Your task to perform on an android device: check data usage Image 0: 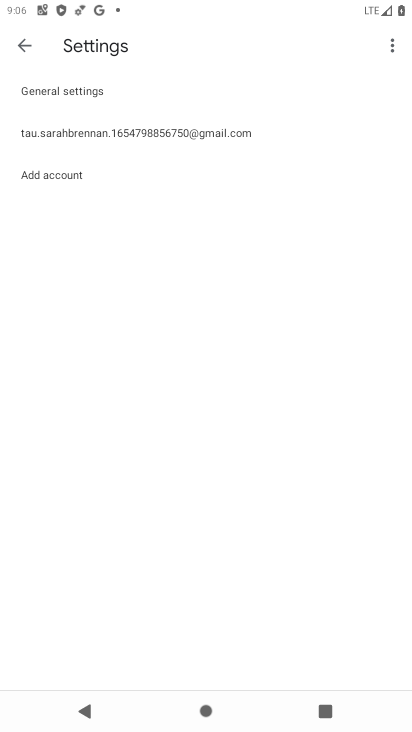
Step 0: press home button
Your task to perform on an android device: check data usage Image 1: 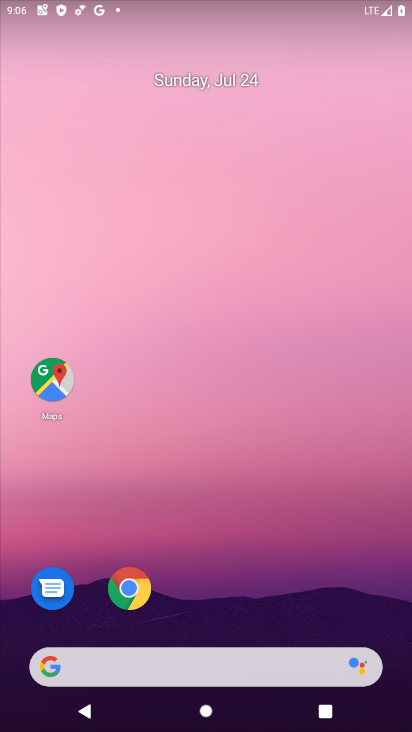
Step 1: drag from (183, 658) to (207, 264)
Your task to perform on an android device: check data usage Image 2: 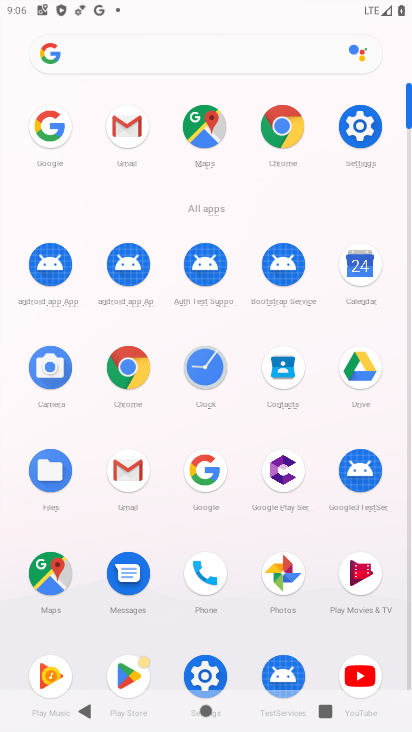
Step 2: click (376, 117)
Your task to perform on an android device: check data usage Image 3: 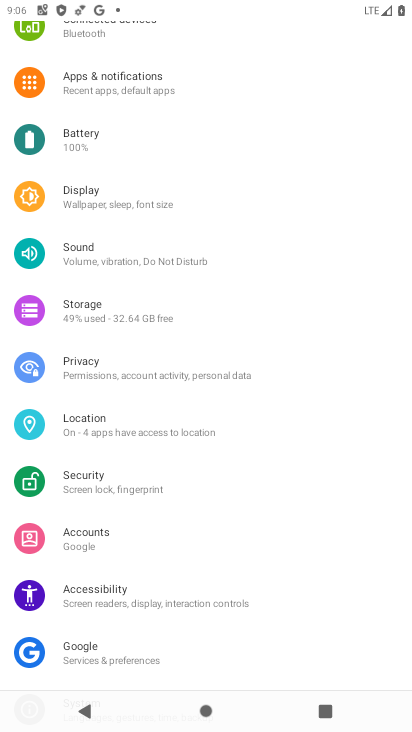
Step 3: drag from (131, 114) to (84, 448)
Your task to perform on an android device: check data usage Image 4: 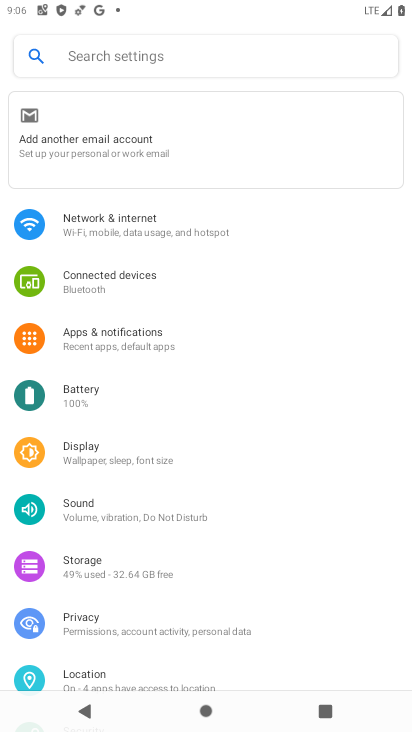
Step 4: click (137, 248)
Your task to perform on an android device: check data usage Image 5: 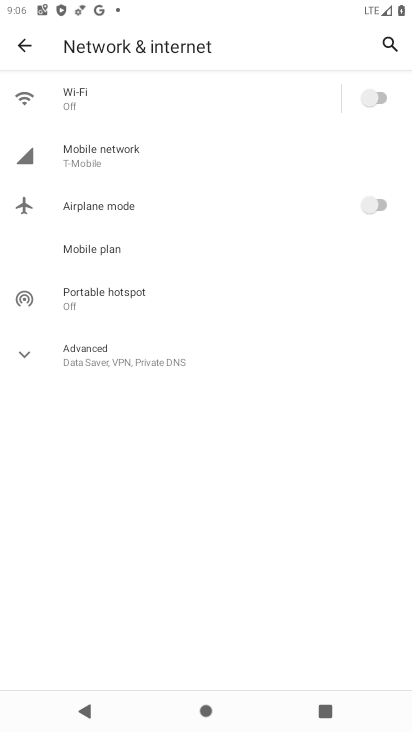
Step 5: click (136, 150)
Your task to perform on an android device: check data usage Image 6: 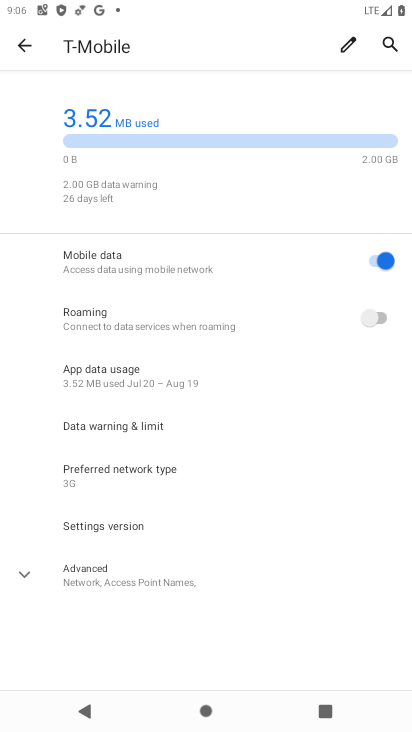
Step 6: task complete